Your task to perform on an android device: Go to Maps Image 0: 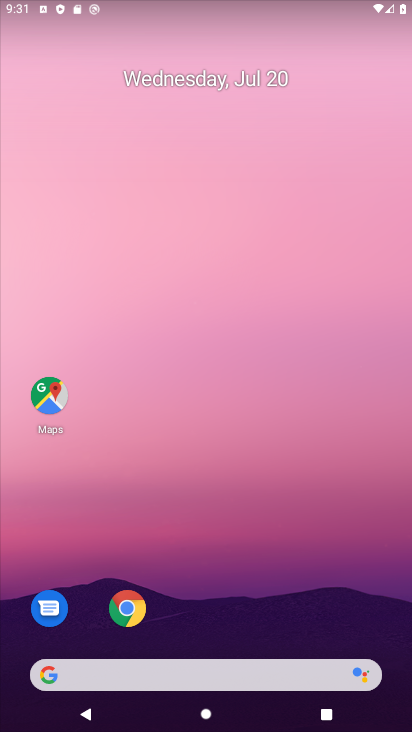
Step 0: drag from (184, 614) to (198, 192)
Your task to perform on an android device: Go to Maps Image 1: 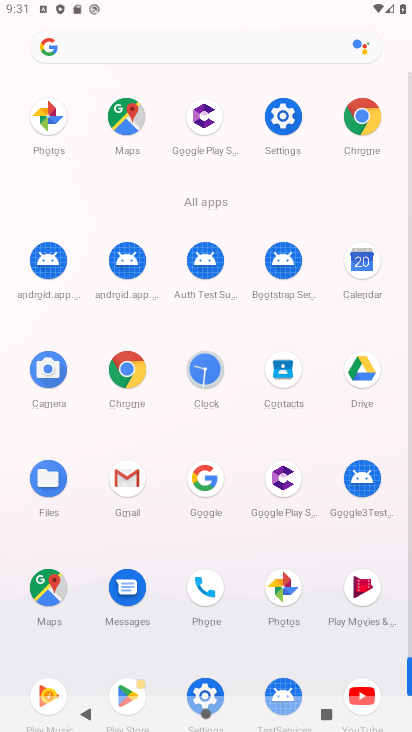
Step 1: click (53, 587)
Your task to perform on an android device: Go to Maps Image 2: 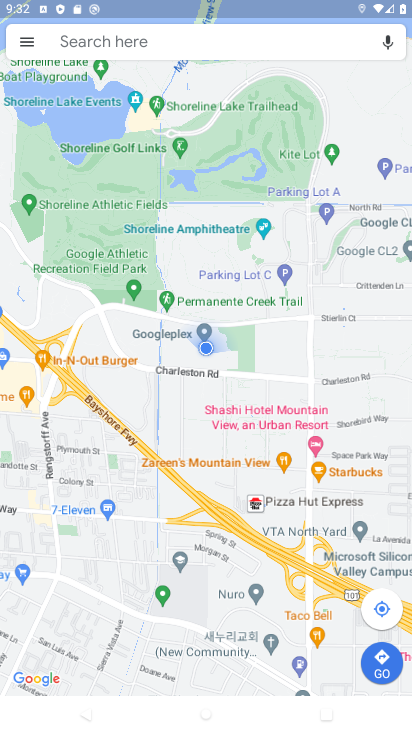
Step 2: task complete